Your task to perform on an android device: Search for a new mascara Image 0: 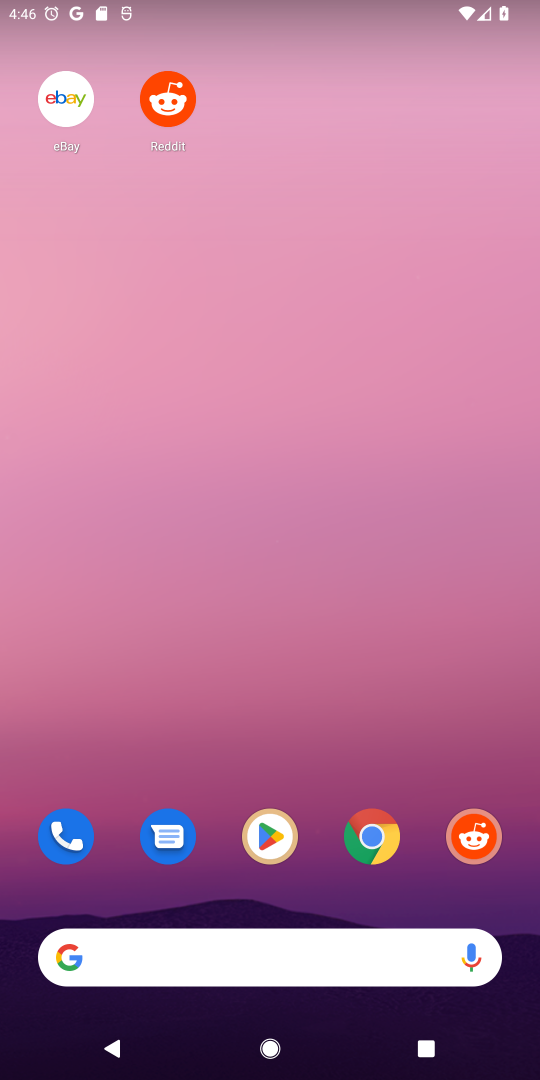
Step 0: press home button
Your task to perform on an android device: Search for a new mascara Image 1: 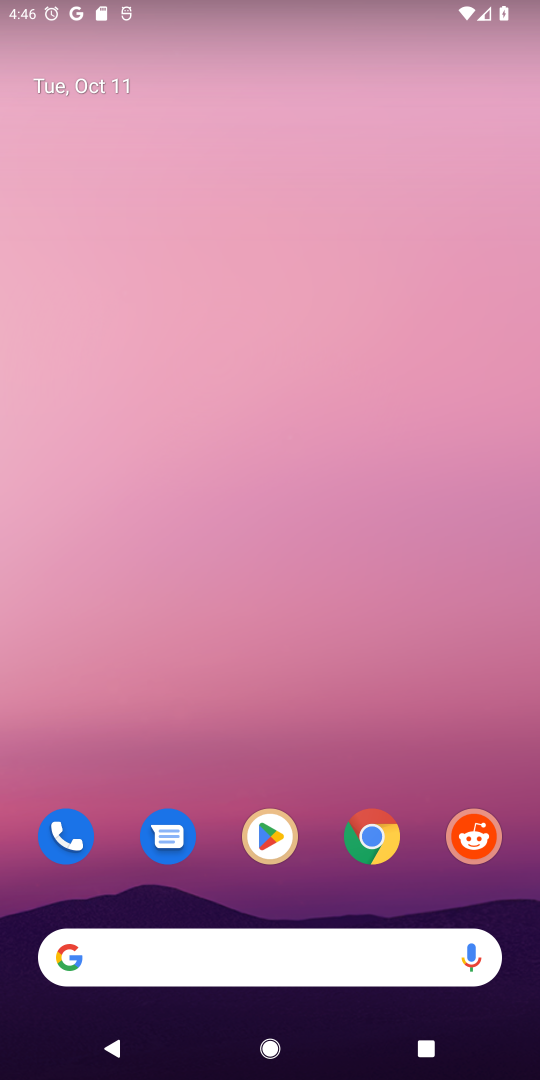
Step 1: click (275, 935)
Your task to perform on an android device: Search for a new mascara Image 2: 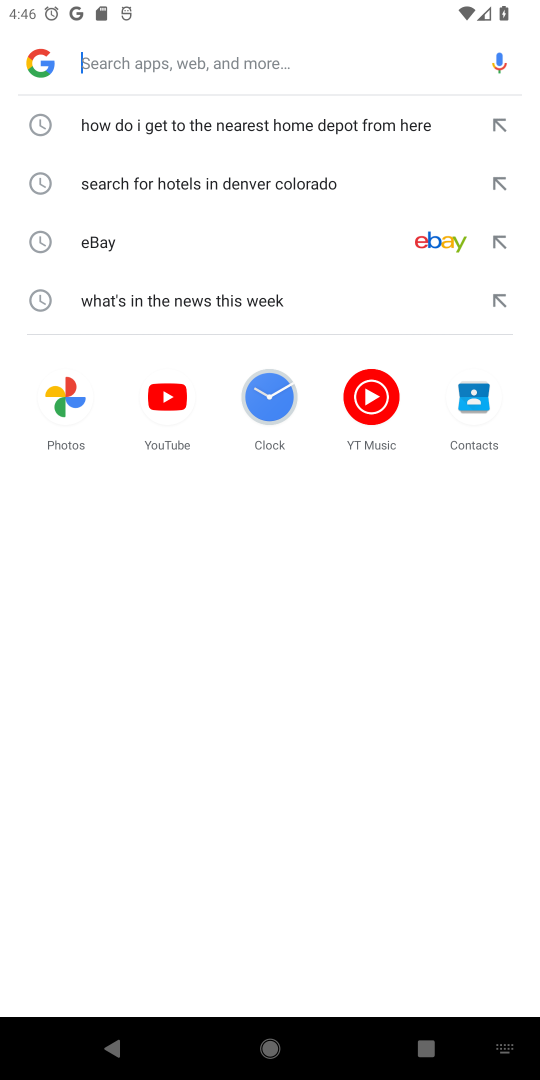
Step 2: type "new mascara"
Your task to perform on an android device: Search for a new mascara Image 3: 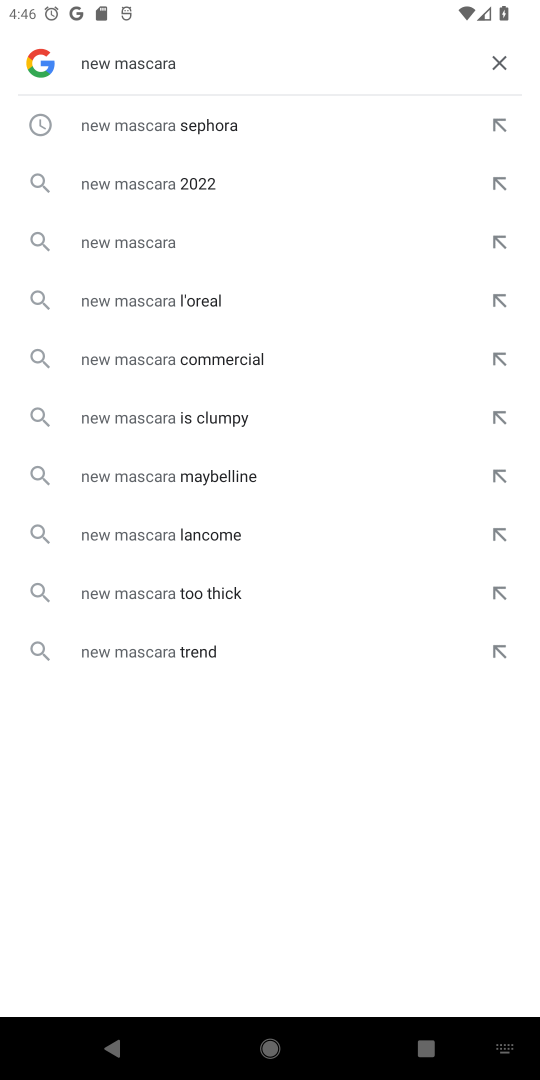
Step 3: click (125, 138)
Your task to perform on an android device: Search for a new mascara Image 4: 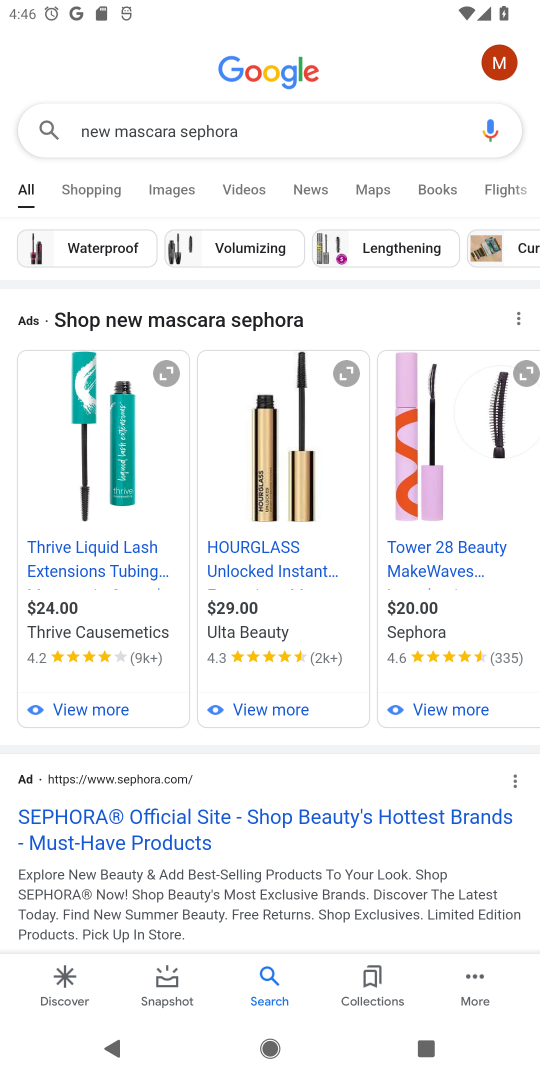
Step 4: task complete